Your task to perform on an android device: delete location history Image 0: 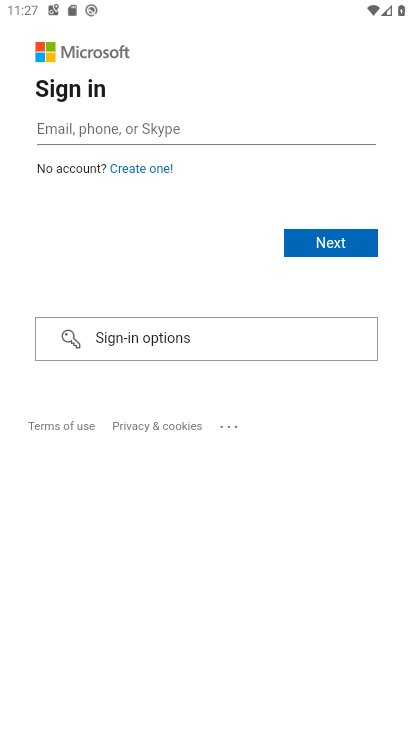
Step 0: press home button
Your task to perform on an android device: delete location history Image 1: 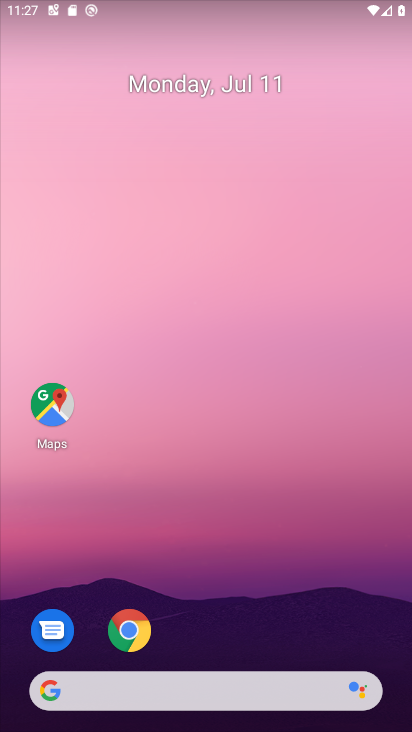
Step 1: click (49, 409)
Your task to perform on an android device: delete location history Image 2: 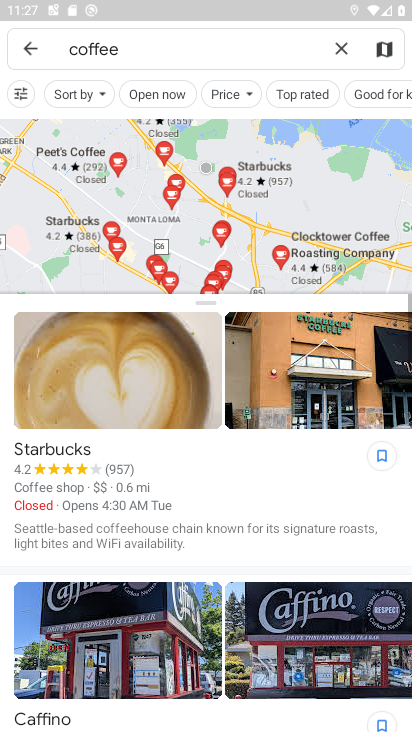
Step 2: click (26, 49)
Your task to perform on an android device: delete location history Image 3: 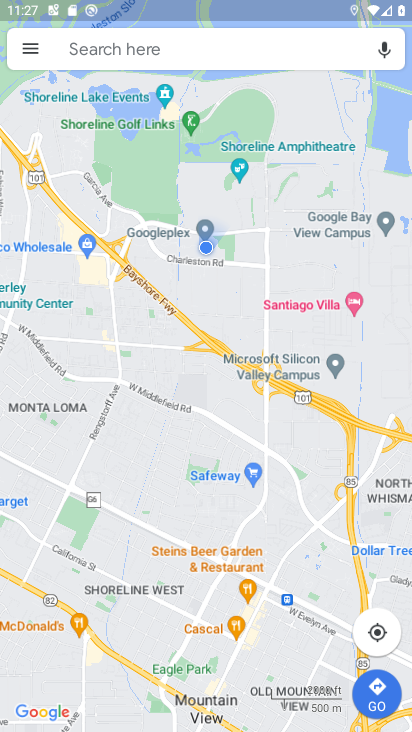
Step 3: click (28, 45)
Your task to perform on an android device: delete location history Image 4: 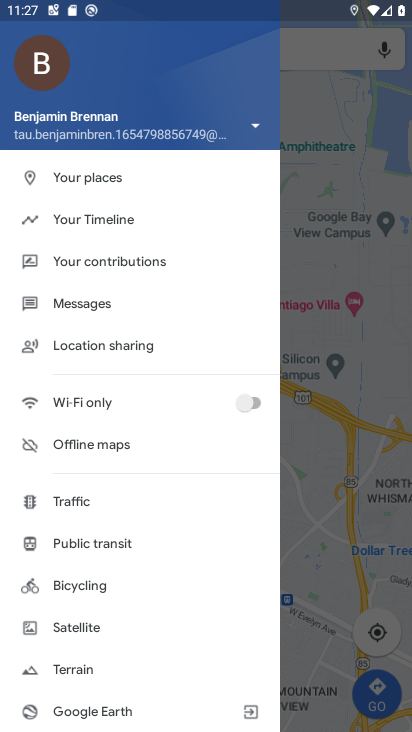
Step 4: click (106, 218)
Your task to perform on an android device: delete location history Image 5: 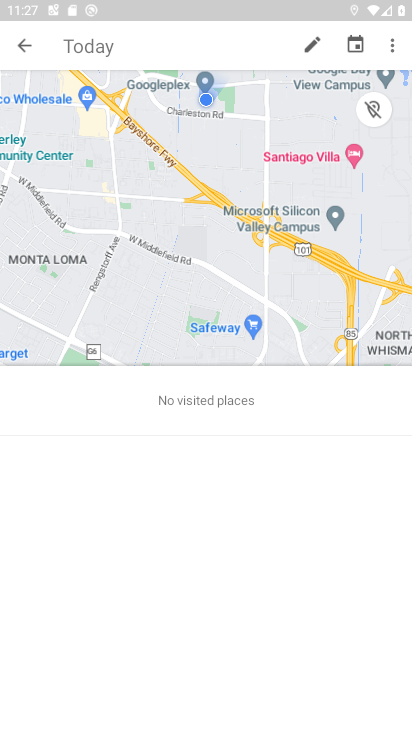
Step 5: task complete